Your task to perform on an android device: open a bookmark in the chrome app Image 0: 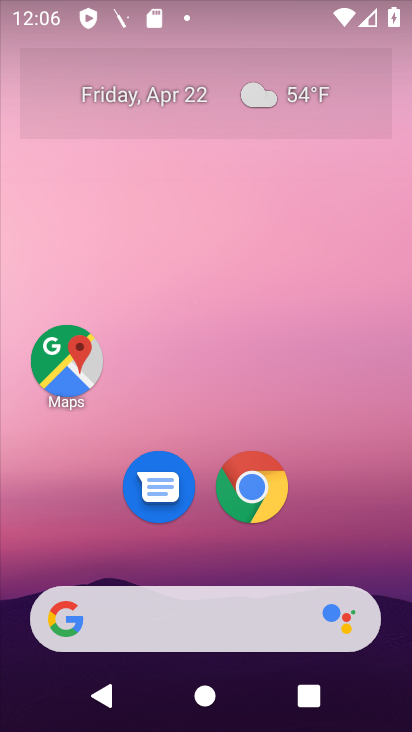
Step 0: click (261, 493)
Your task to perform on an android device: open a bookmark in the chrome app Image 1: 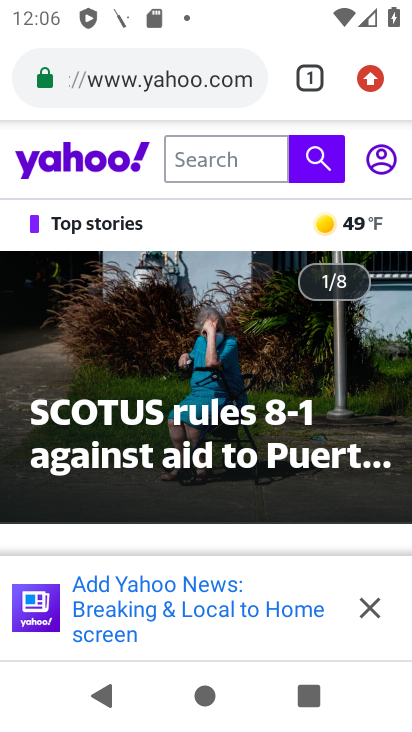
Step 1: click (364, 79)
Your task to perform on an android device: open a bookmark in the chrome app Image 2: 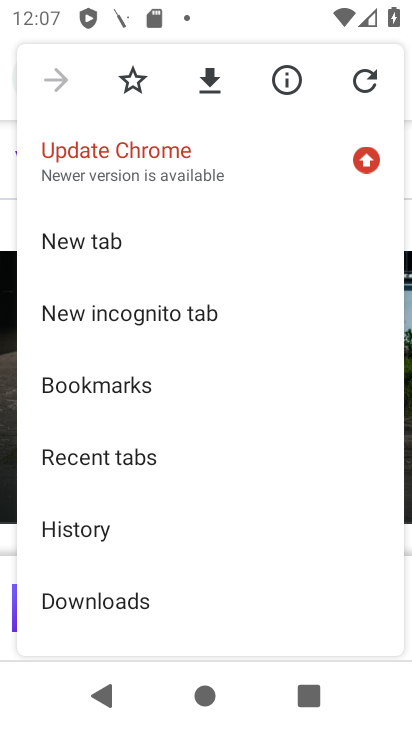
Step 2: click (159, 394)
Your task to perform on an android device: open a bookmark in the chrome app Image 3: 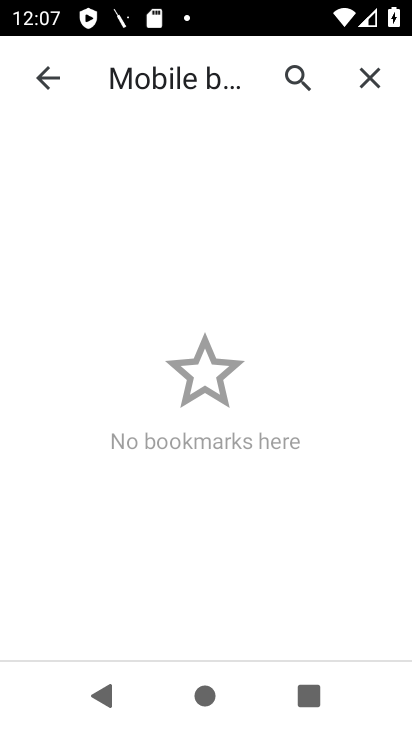
Step 3: task complete